Your task to perform on an android device: find snoozed emails in the gmail app Image 0: 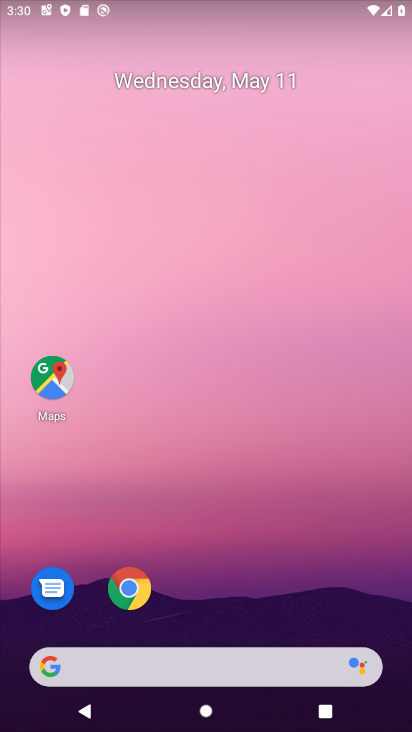
Step 0: drag from (224, 617) to (335, 0)
Your task to perform on an android device: find snoozed emails in the gmail app Image 1: 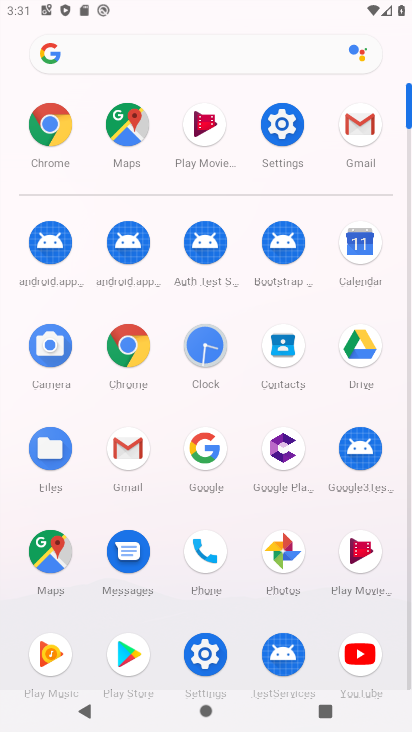
Step 1: click (133, 453)
Your task to perform on an android device: find snoozed emails in the gmail app Image 2: 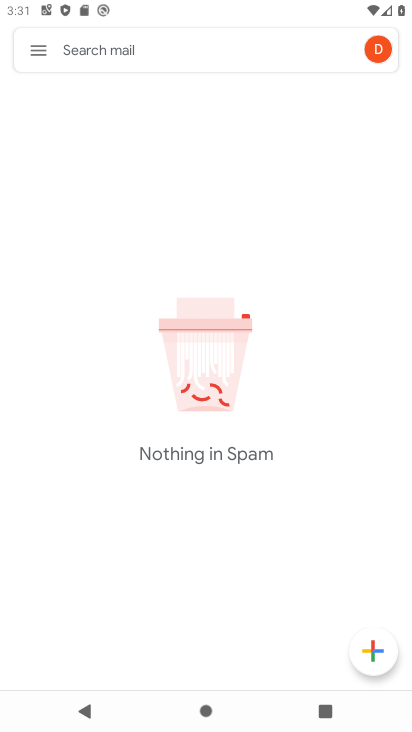
Step 2: click (26, 50)
Your task to perform on an android device: find snoozed emails in the gmail app Image 3: 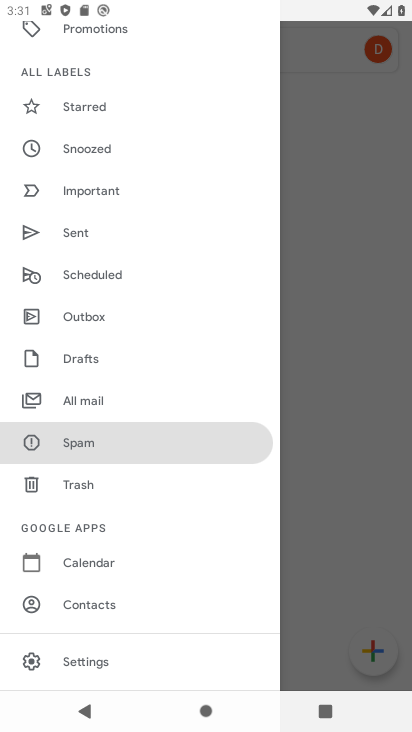
Step 3: drag from (103, 662) to (126, 612)
Your task to perform on an android device: find snoozed emails in the gmail app Image 4: 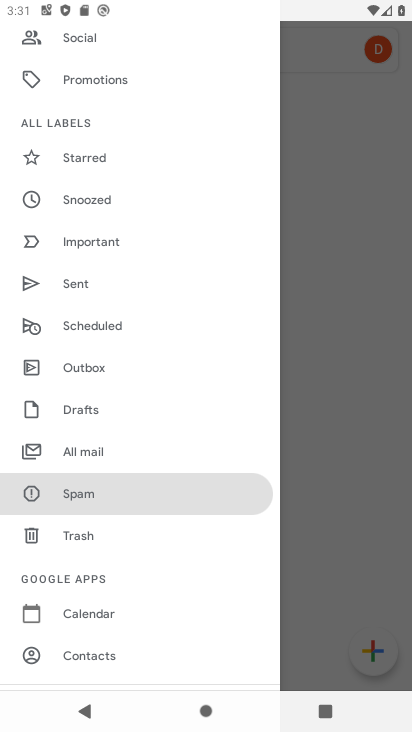
Step 4: click (74, 210)
Your task to perform on an android device: find snoozed emails in the gmail app Image 5: 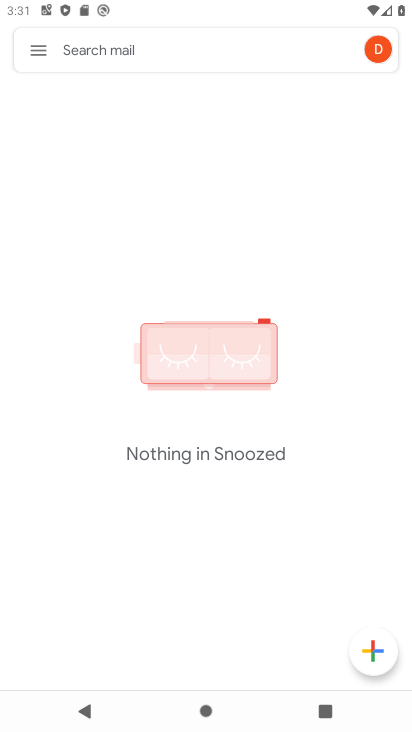
Step 5: task complete